Your task to perform on an android device: set the stopwatch Image 0: 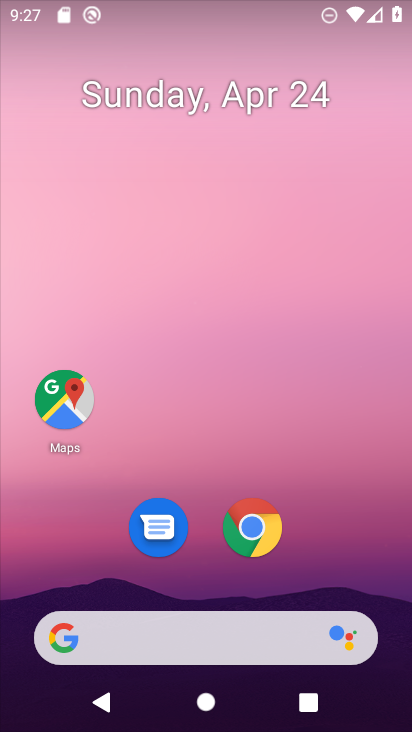
Step 0: drag from (368, 380) to (313, 72)
Your task to perform on an android device: set the stopwatch Image 1: 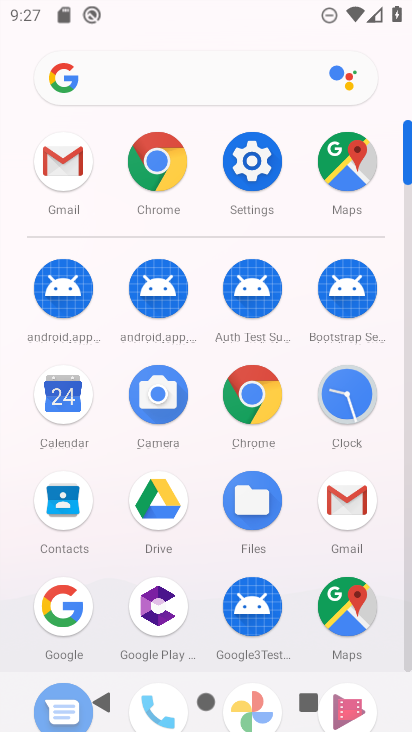
Step 1: click (342, 415)
Your task to perform on an android device: set the stopwatch Image 2: 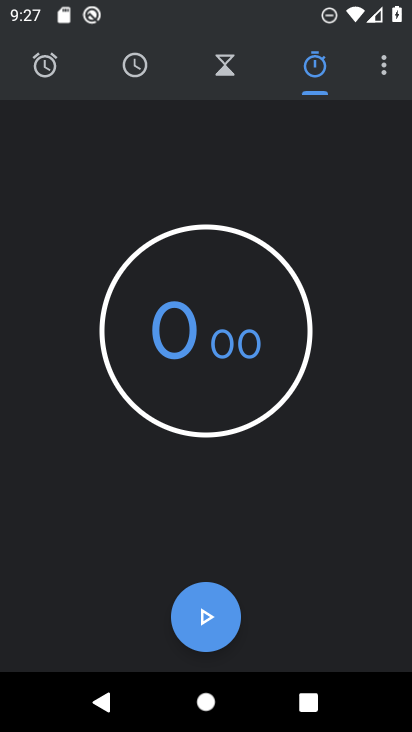
Step 2: task complete